Your task to perform on an android device: delete location history Image 0: 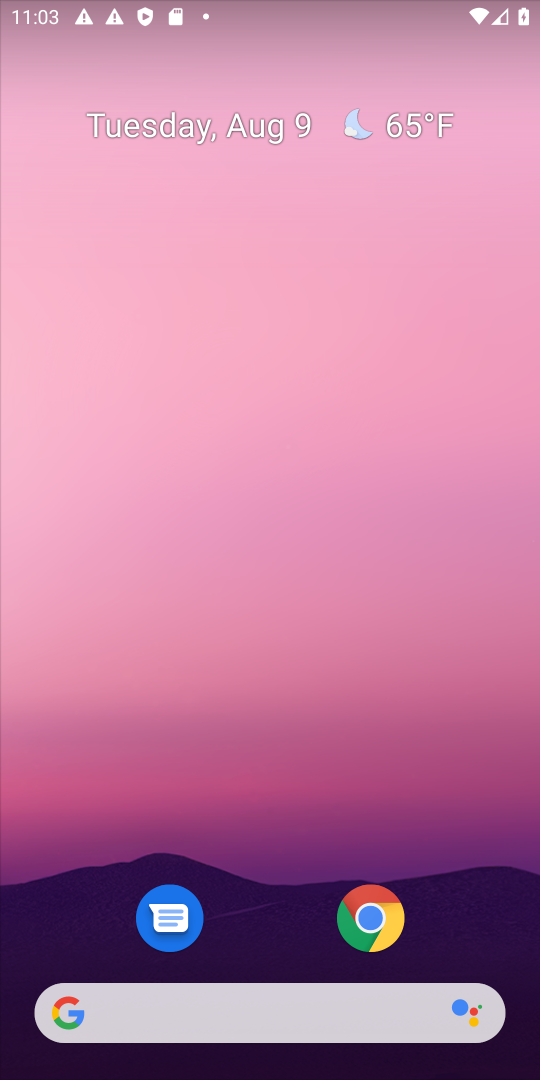
Step 0: drag from (480, 848) to (473, 73)
Your task to perform on an android device: delete location history Image 1: 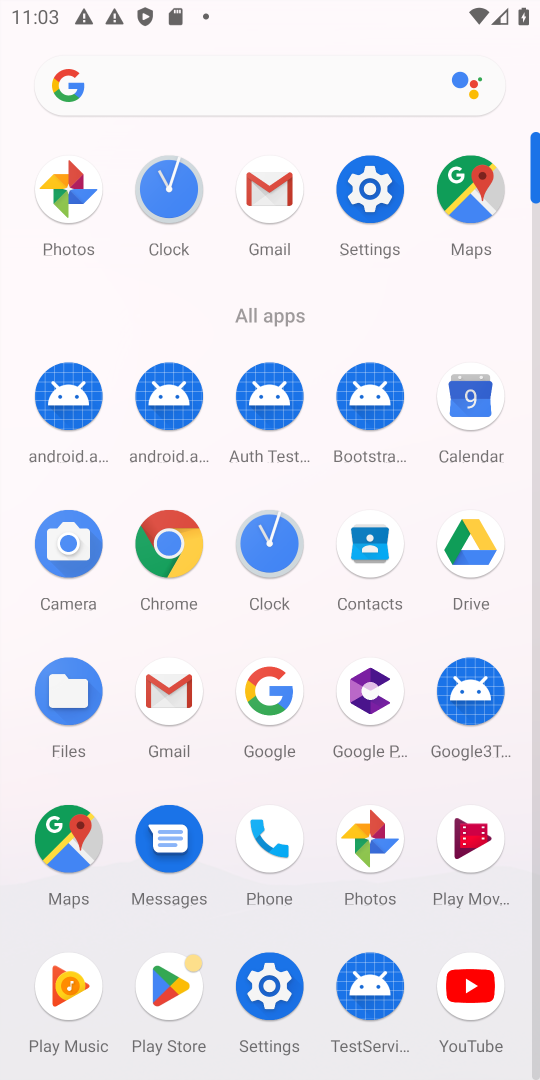
Step 1: click (54, 847)
Your task to perform on an android device: delete location history Image 2: 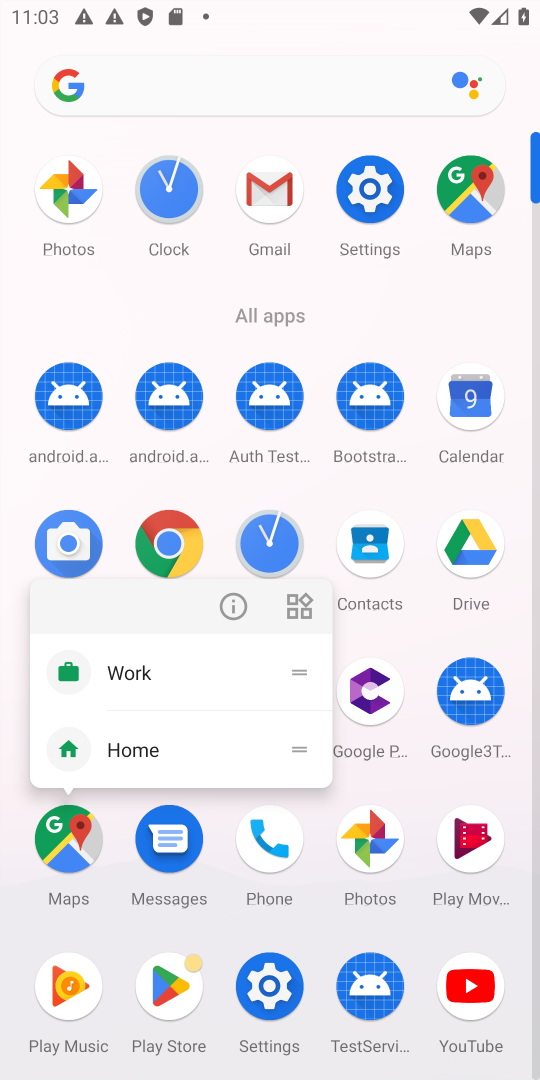
Step 2: click (64, 841)
Your task to perform on an android device: delete location history Image 3: 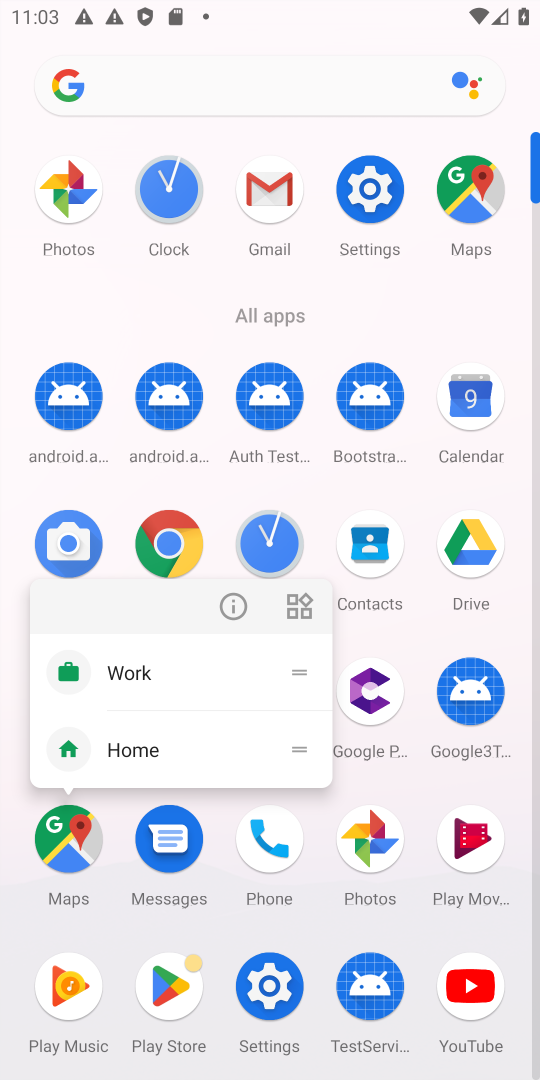
Step 3: click (64, 841)
Your task to perform on an android device: delete location history Image 4: 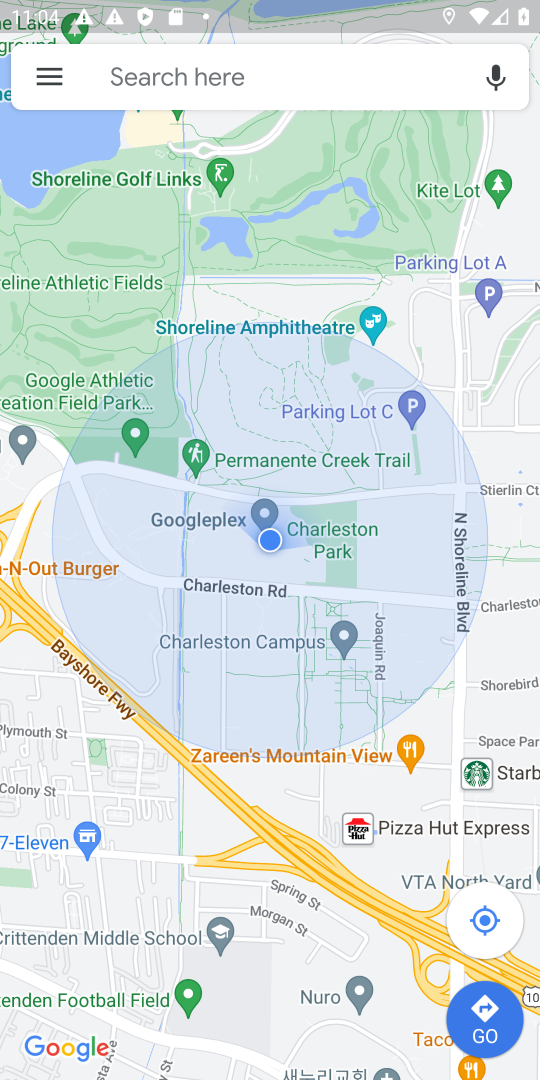
Step 4: click (53, 78)
Your task to perform on an android device: delete location history Image 5: 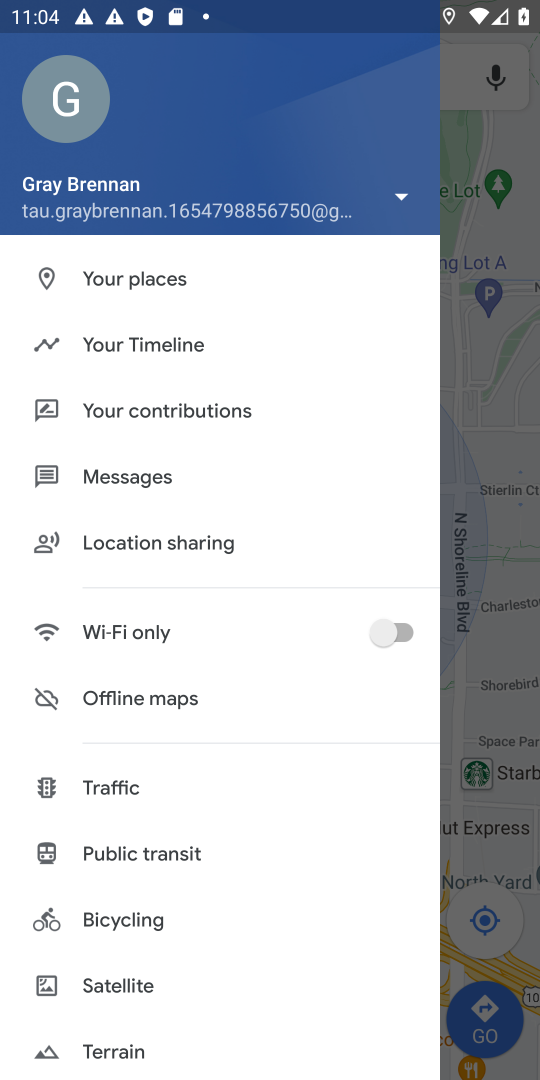
Step 5: drag from (238, 999) to (309, 363)
Your task to perform on an android device: delete location history Image 6: 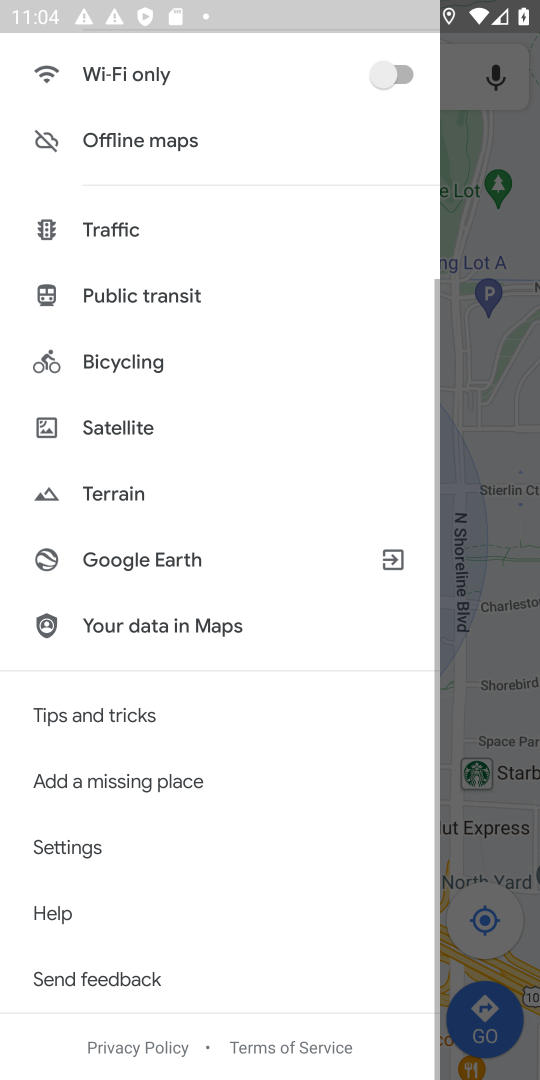
Step 6: click (92, 836)
Your task to perform on an android device: delete location history Image 7: 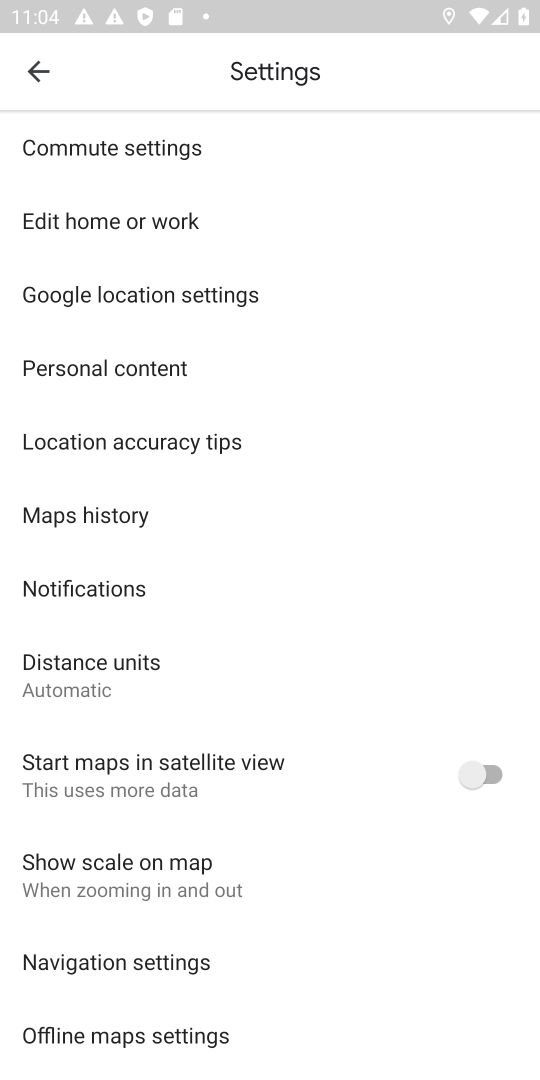
Step 7: click (88, 516)
Your task to perform on an android device: delete location history Image 8: 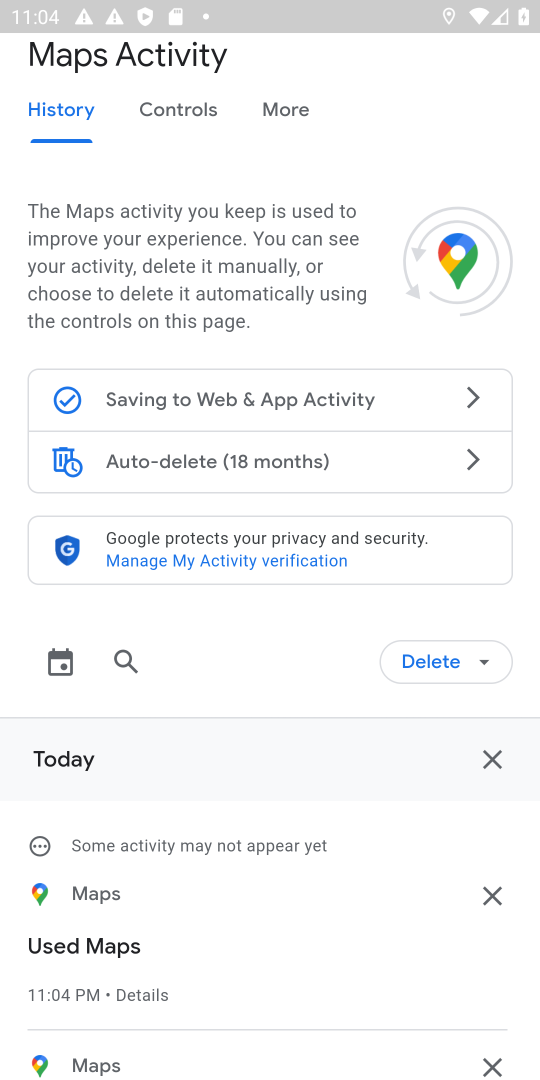
Step 8: click (466, 664)
Your task to perform on an android device: delete location history Image 9: 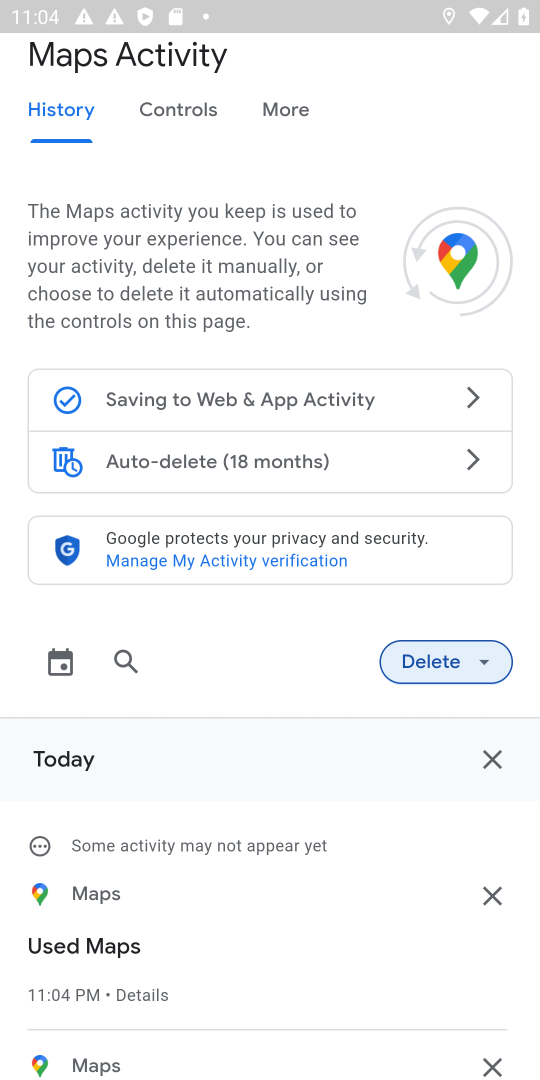
Step 9: click (492, 669)
Your task to perform on an android device: delete location history Image 10: 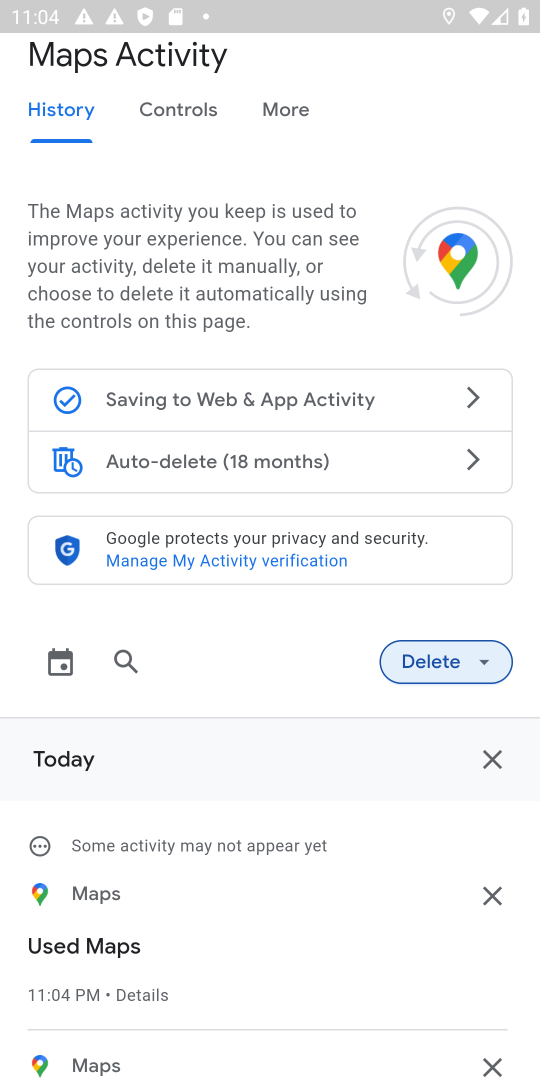
Step 10: click (495, 657)
Your task to perform on an android device: delete location history Image 11: 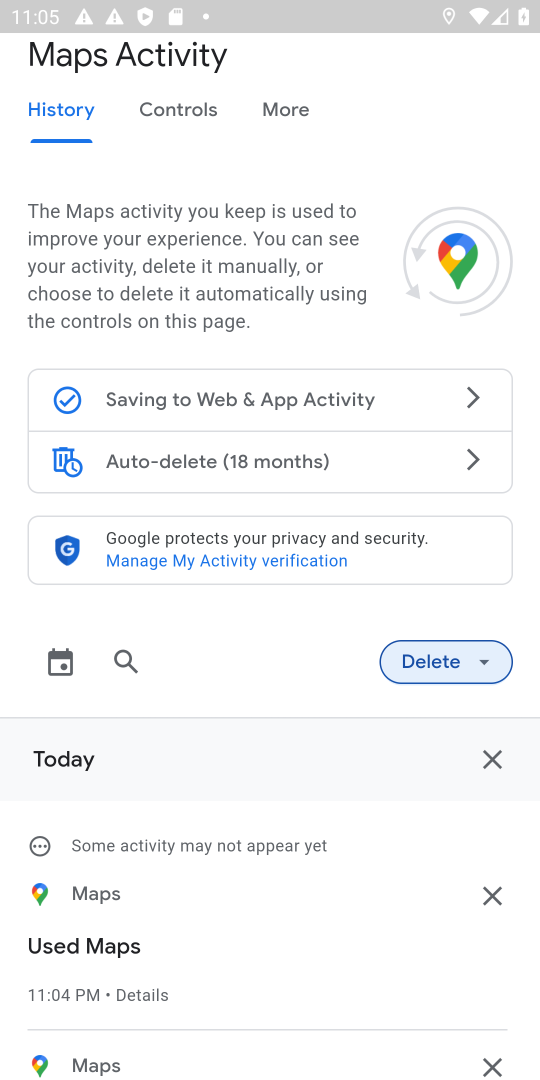
Step 11: click (493, 657)
Your task to perform on an android device: delete location history Image 12: 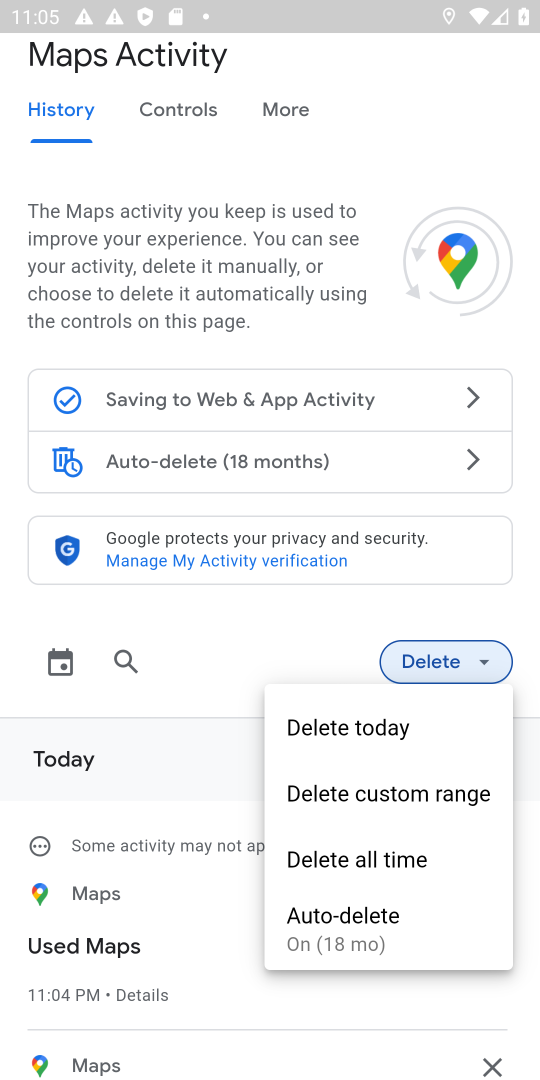
Step 12: click (361, 846)
Your task to perform on an android device: delete location history Image 13: 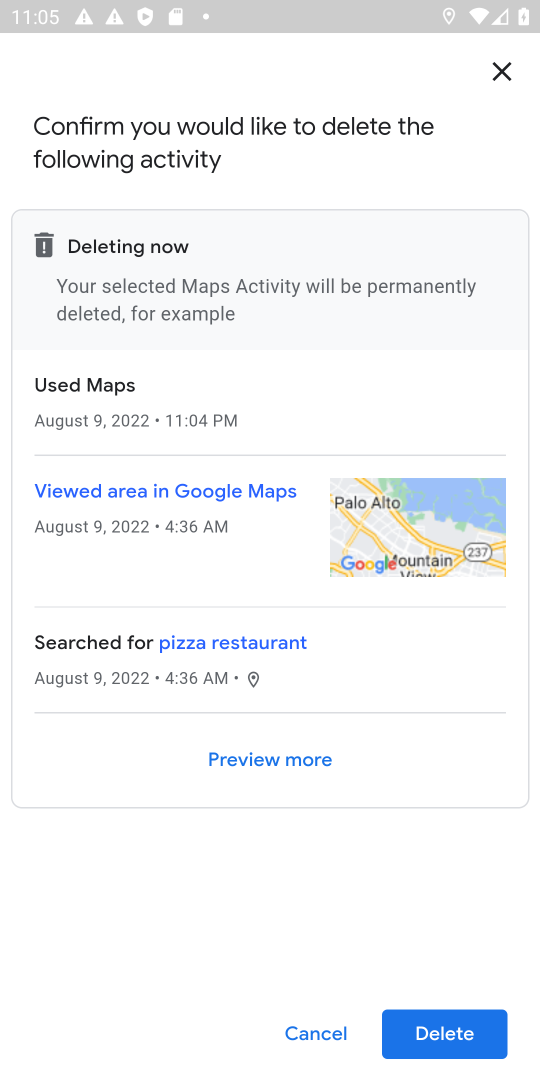
Step 13: click (445, 1027)
Your task to perform on an android device: delete location history Image 14: 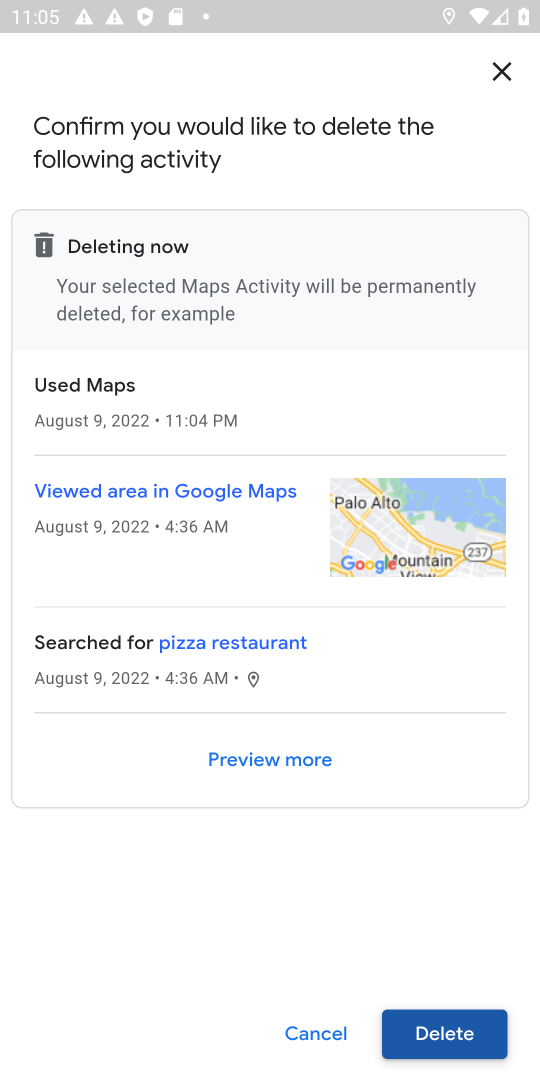
Step 14: click (442, 1030)
Your task to perform on an android device: delete location history Image 15: 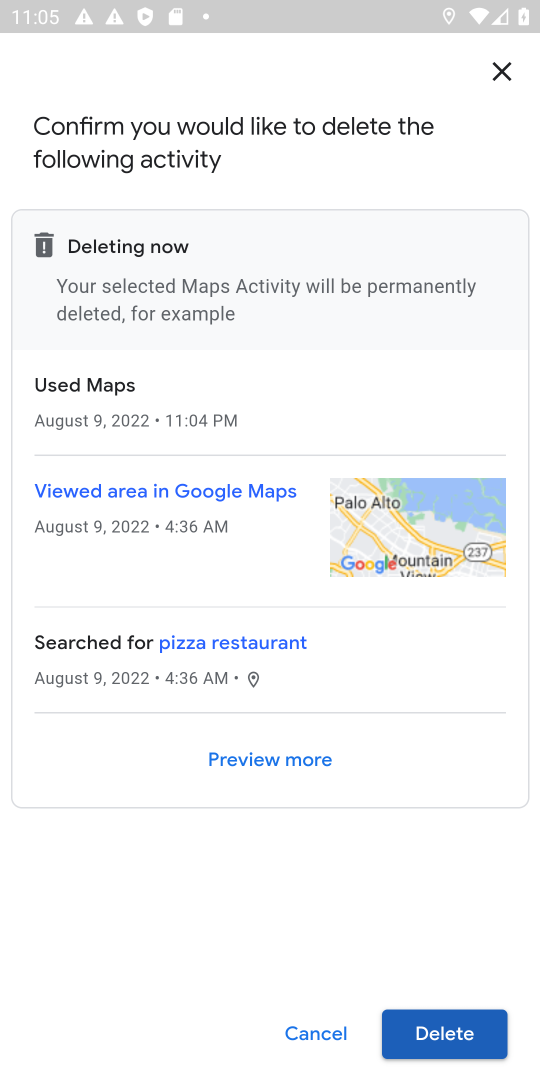
Step 15: click (442, 1030)
Your task to perform on an android device: delete location history Image 16: 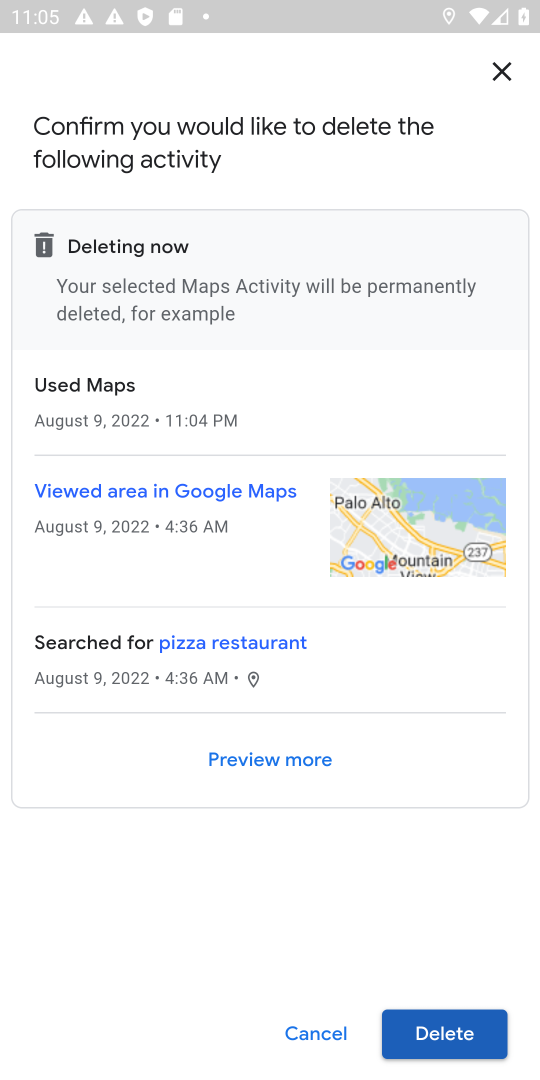
Step 16: click (452, 1039)
Your task to perform on an android device: delete location history Image 17: 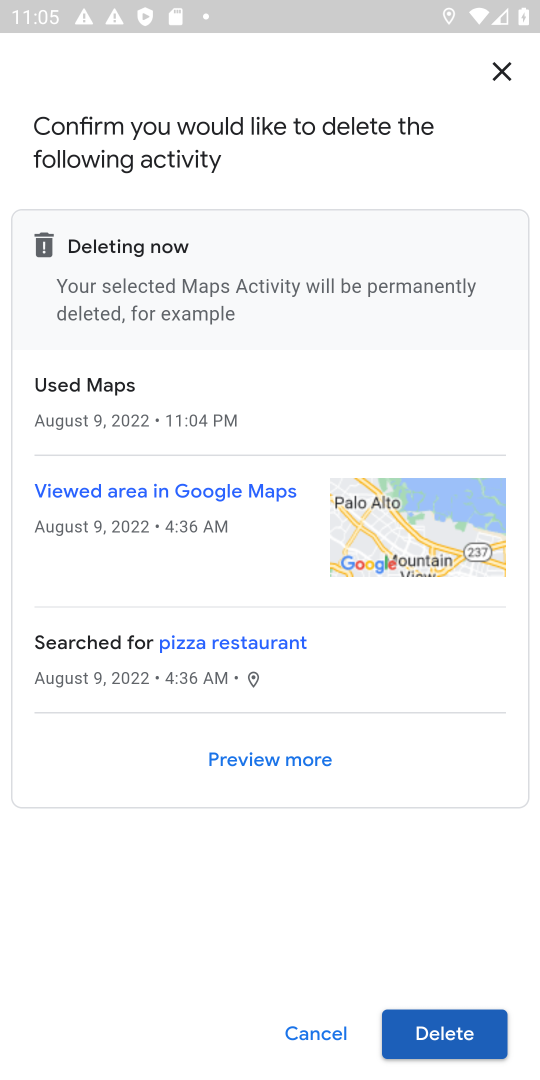
Step 17: click (424, 1021)
Your task to perform on an android device: delete location history Image 18: 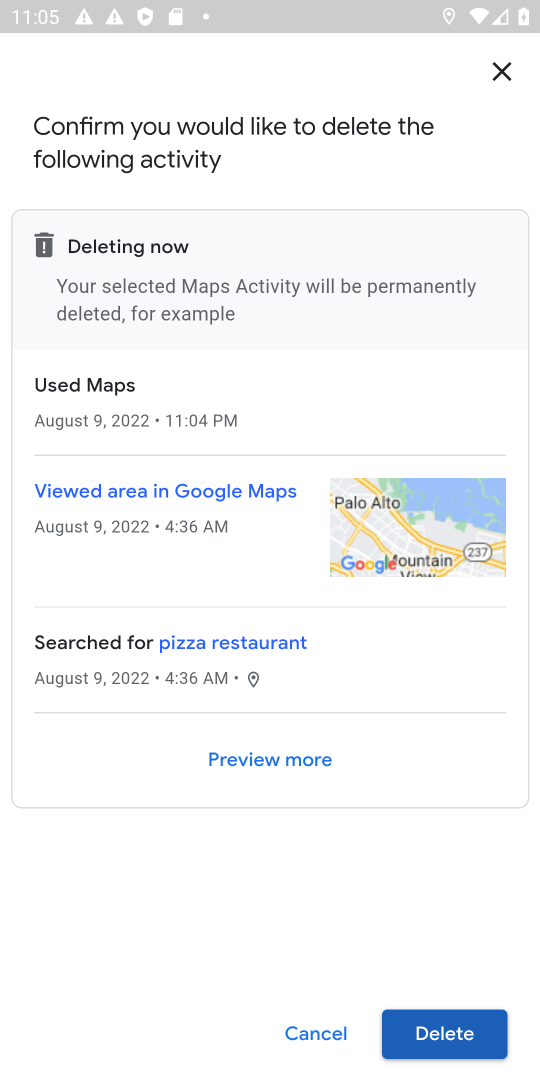
Step 18: click (487, 1055)
Your task to perform on an android device: delete location history Image 19: 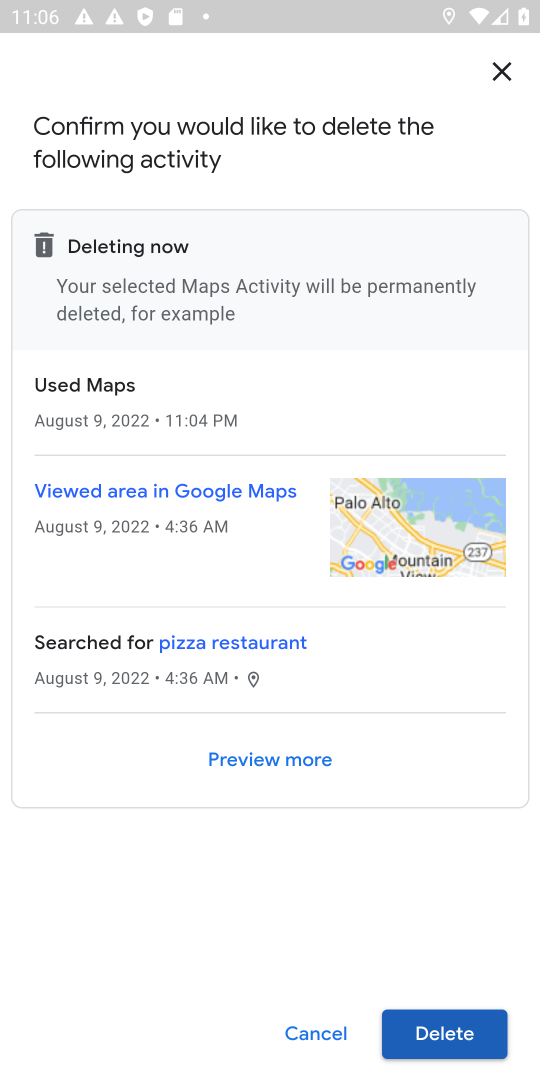
Step 19: click (465, 1044)
Your task to perform on an android device: delete location history Image 20: 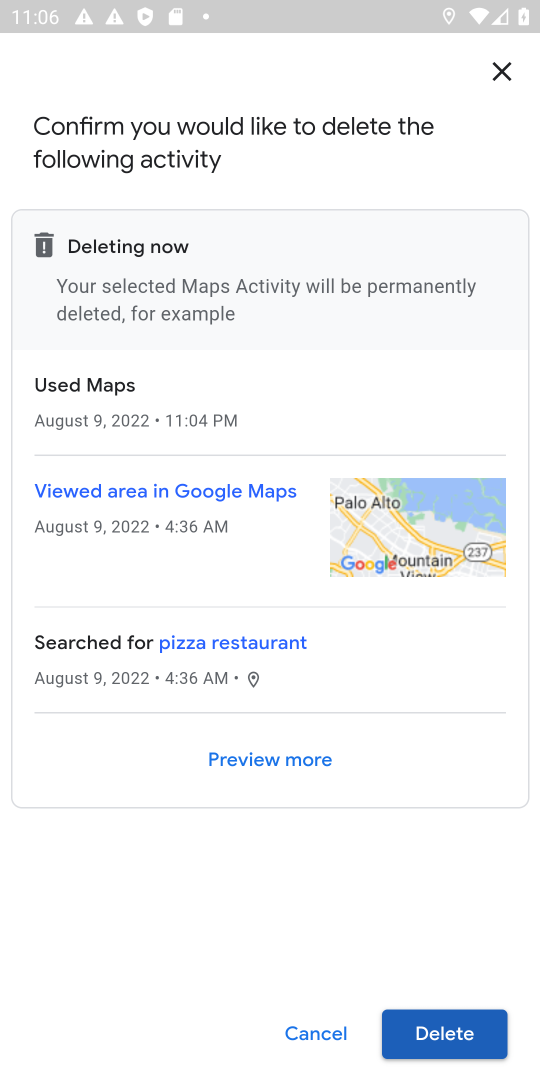
Step 20: click (470, 1045)
Your task to perform on an android device: delete location history Image 21: 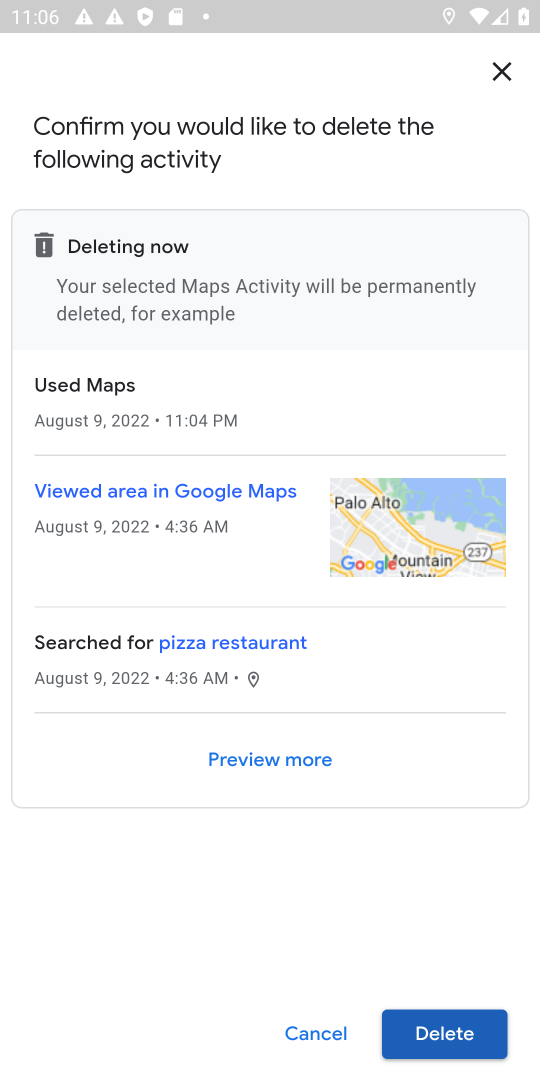
Step 21: click (389, 1030)
Your task to perform on an android device: delete location history Image 22: 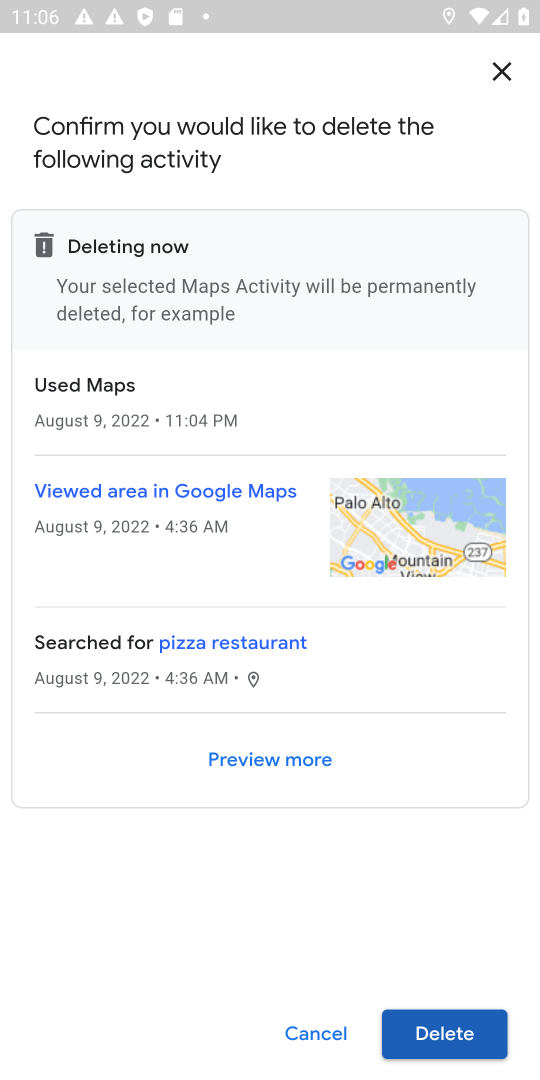
Step 22: task complete